Your task to perform on an android device: What's on my calendar tomorrow? Image 0: 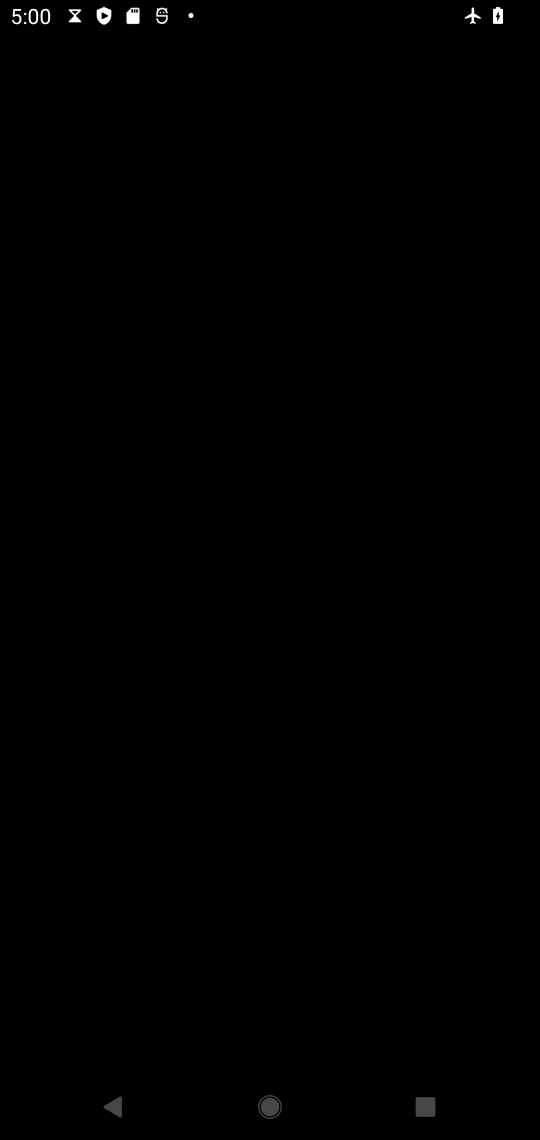
Step 0: press home button
Your task to perform on an android device: What's on my calendar tomorrow? Image 1: 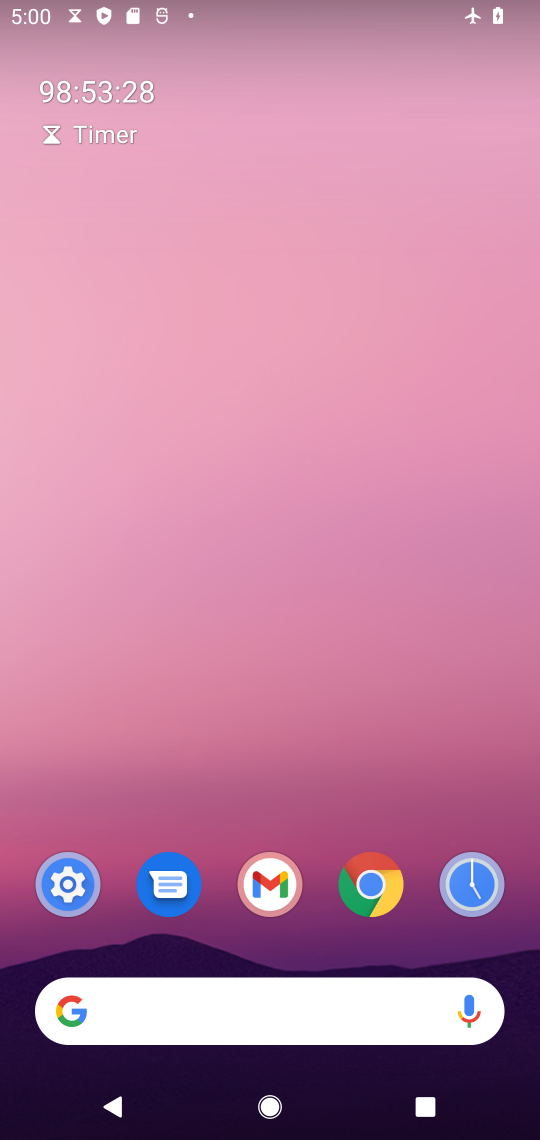
Step 1: drag from (348, 1075) to (419, 542)
Your task to perform on an android device: What's on my calendar tomorrow? Image 2: 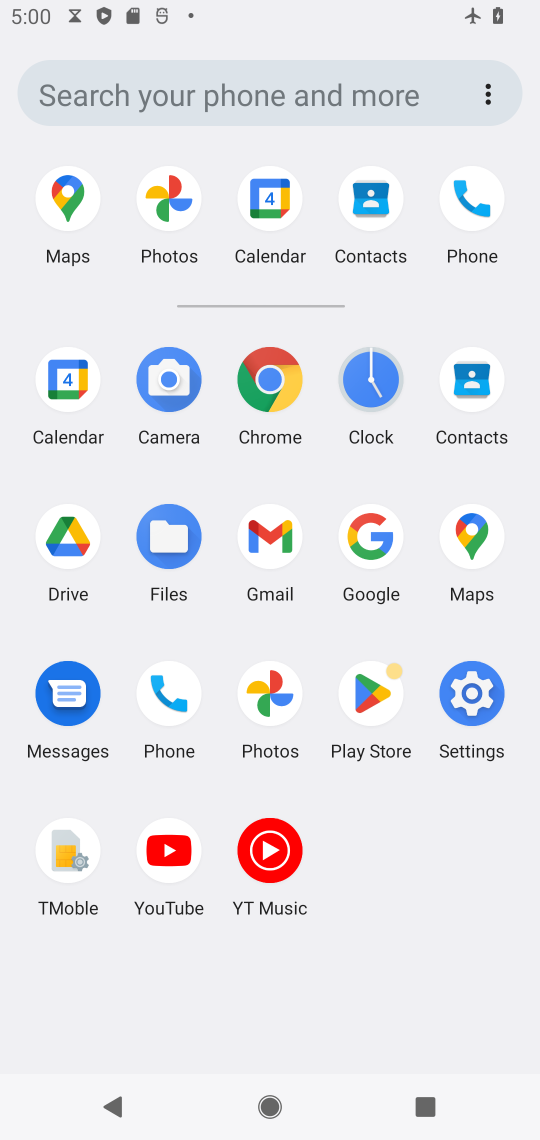
Step 2: click (278, 185)
Your task to perform on an android device: What's on my calendar tomorrow? Image 3: 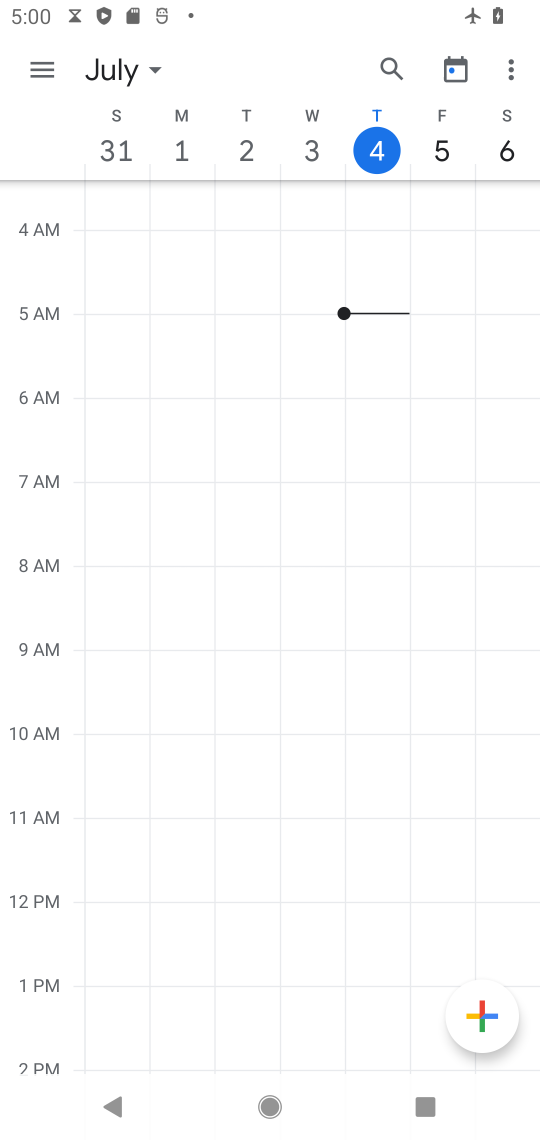
Step 3: click (437, 155)
Your task to perform on an android device: What's on my calendar tomorrow? Image 4: 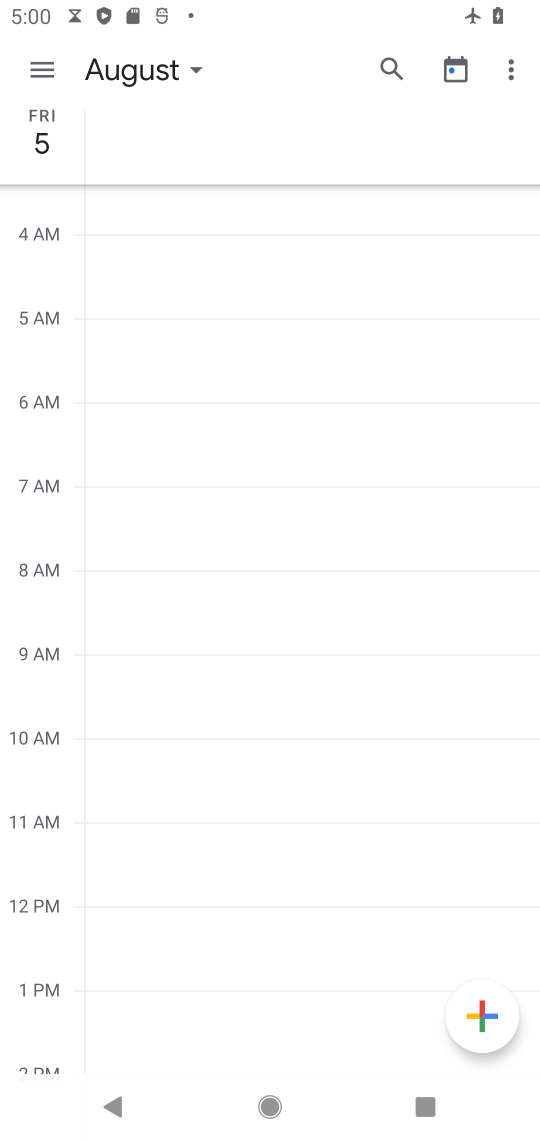
Step 4: task complete